Your task to perform on an android device: uninstall "WhatsApp Messenger" Image 0: 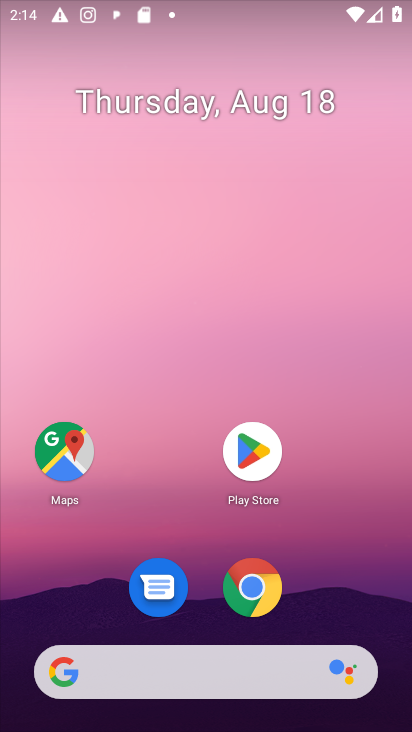
Step 0: click (255, 460)
Your task to perform on an android device: uninstall "WhatsApp Messenger" Image 1: 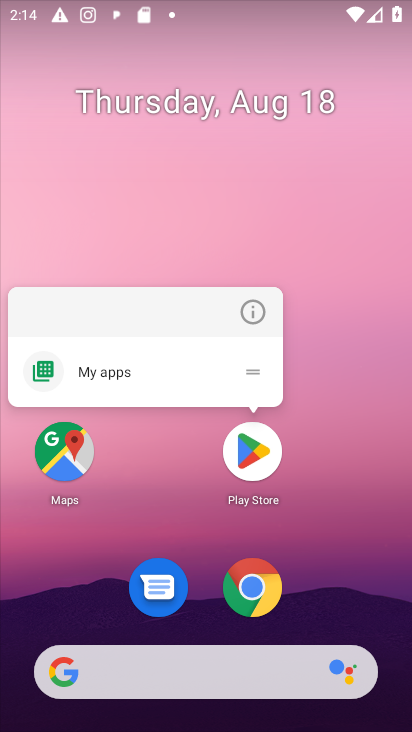
Step 1: click (254, 446)
Your task to perform on an android device: uninstall "WhatsApp Messenger" Image 2: 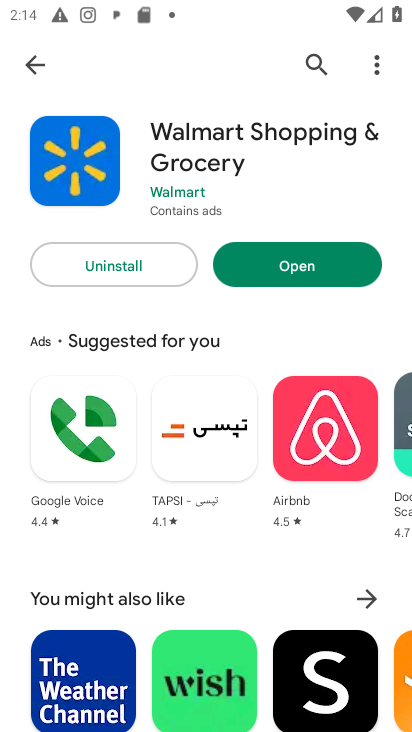
Step 2: click (312, 69)
Your task to perform on an android device: uninstall "WhatsApp Messenger" Image 3: 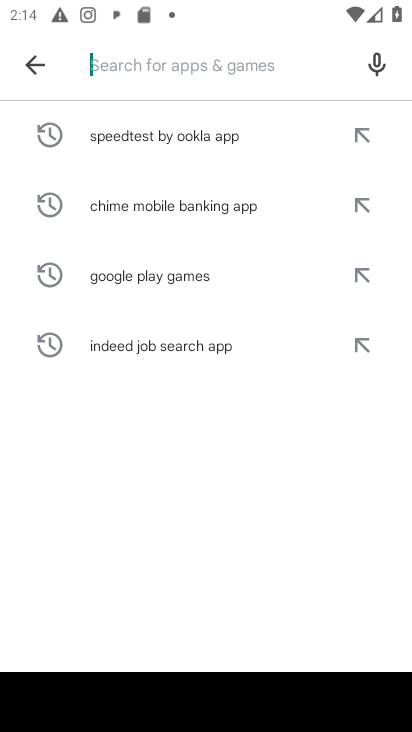
Step 3: type "WhatsApp Messenger"
Your task to perform on an android device: uninstall "WhatsApp Messenger" Image 4: 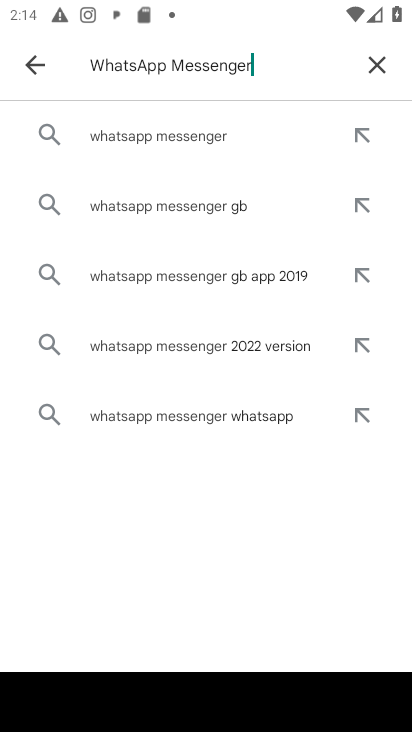
Step 4: click (195, 135)
Your task to perform on an android device: uninstall "WhatsApp Messenger" Image 5: 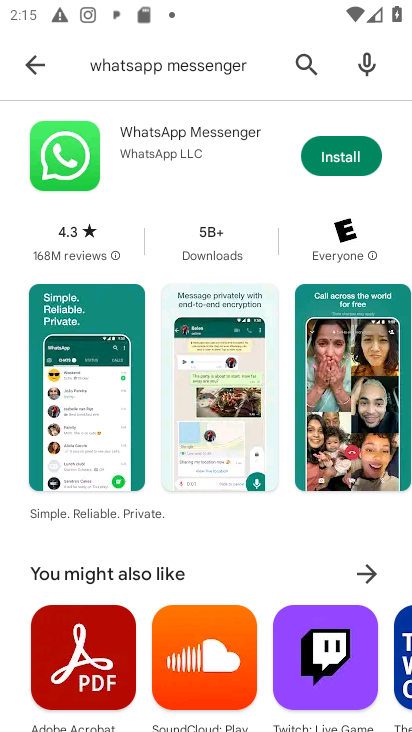
Step 5: task complete